Your task to perform on an android device: refresh tabs in the chrome app Image 0: 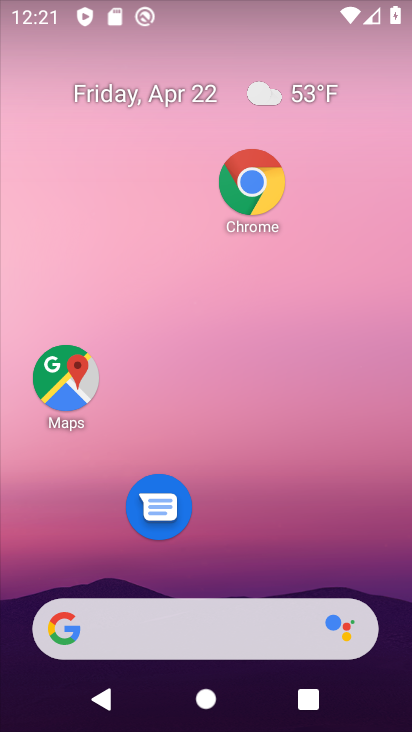
Step 0: click (261, 182)
Your task to perform on an android device: refresh tabs in the chrome app Image 1: 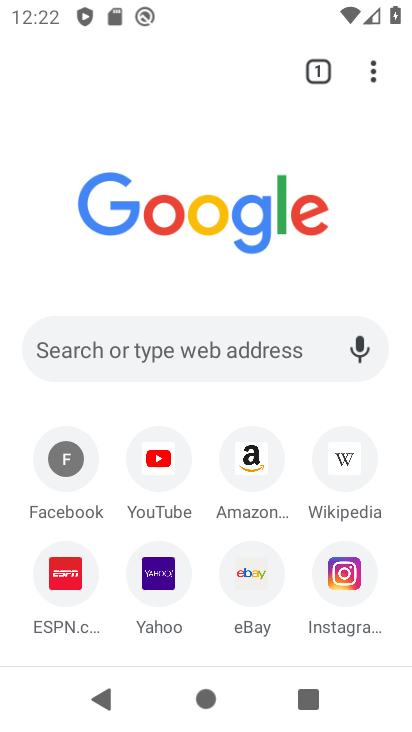
Step 1: task complete